Your task to perform on an android device: Search for Mexican restaurants on Maps Image 0: 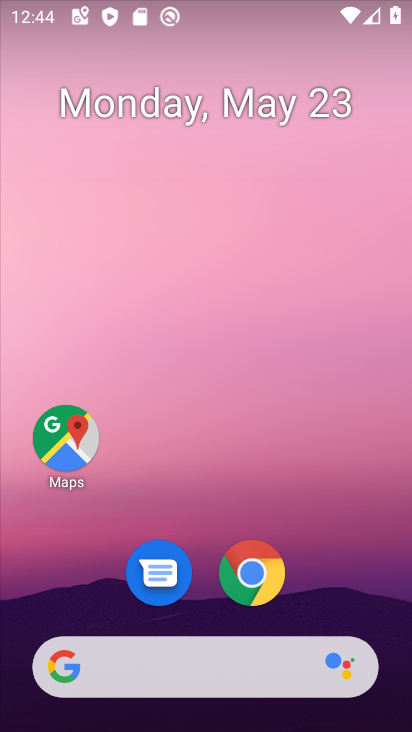
Step 0: drag from (342, 663) to (330, 57)
Your task to perform on an android device: Search for Mexican restaurants on Maps Image 1: 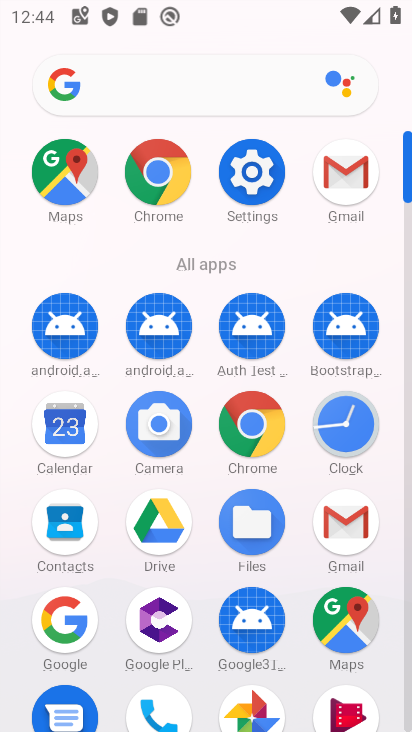
Step 1: click (276, 467)
Your task to perform on an android device: Search for Mexican restaurants on Maps Image 2: 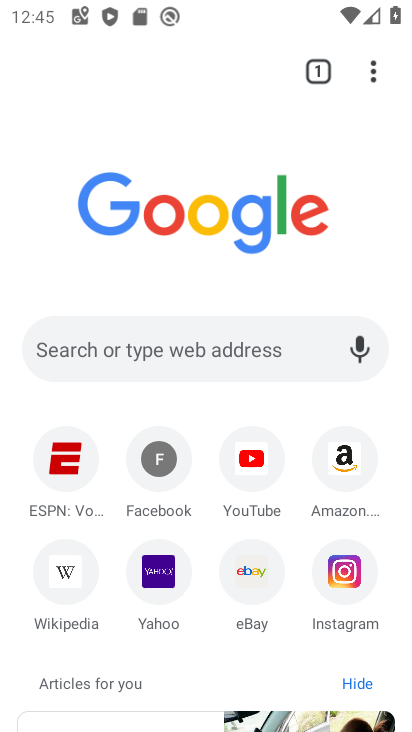
Step 2: press home button
Your task to perform on an android device: Search for Mexican restaurants on Maps Image 3: 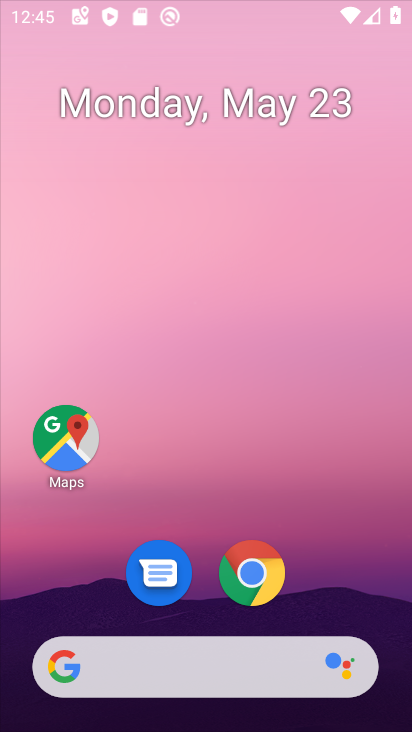
Step 3: drag from (318, 657) to (318, 4)
Your task to perform on an android device: Search for Mexican restaurants on Maps Image 4: 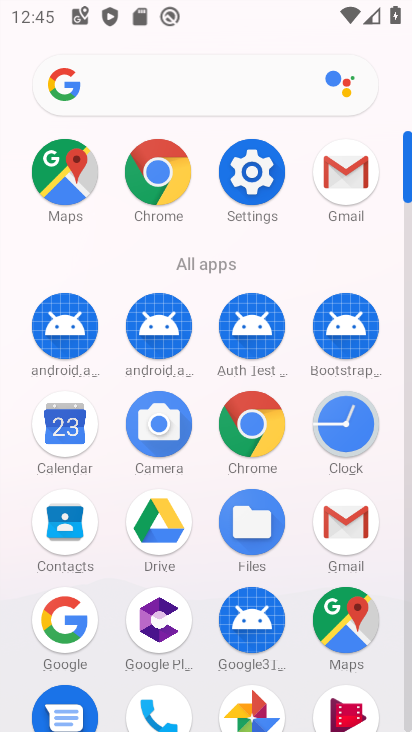
Step 4: click (341, 608)
Your task to perform on an android device: Search for Mexican restaurants on Maps Image 5: 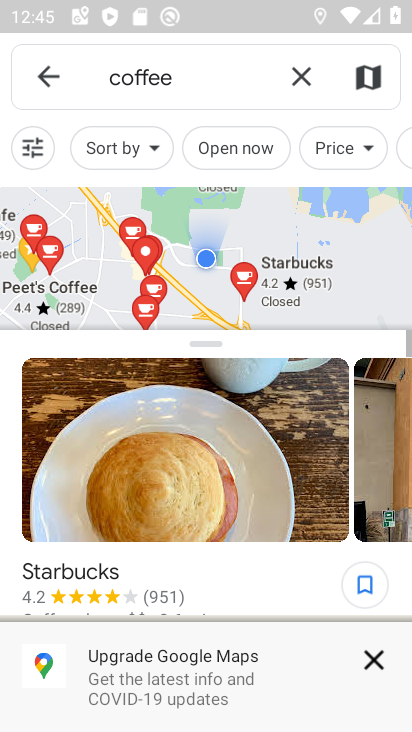
Step 5: click (312, 74)
Your task to perform on an android device: Search for Mexican restaurants on Maps Image 6: 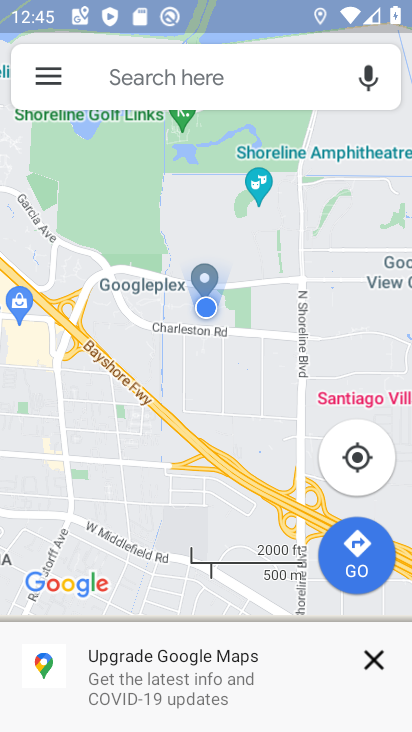
Step 6: click (244, 96)
Your task to perform on an android device: Search for Mexican restaurants on Maps Image 7: 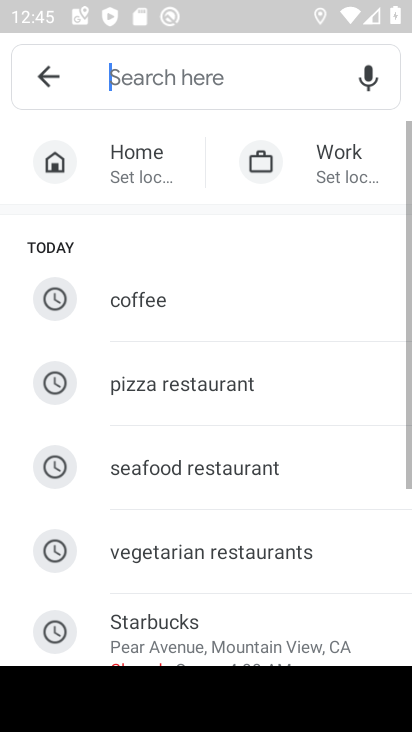
Step 7: drag from (241, 579) to (219, 144)
Your task to perform on an android device: Search for Mexican restaurants on Maps Image 8: 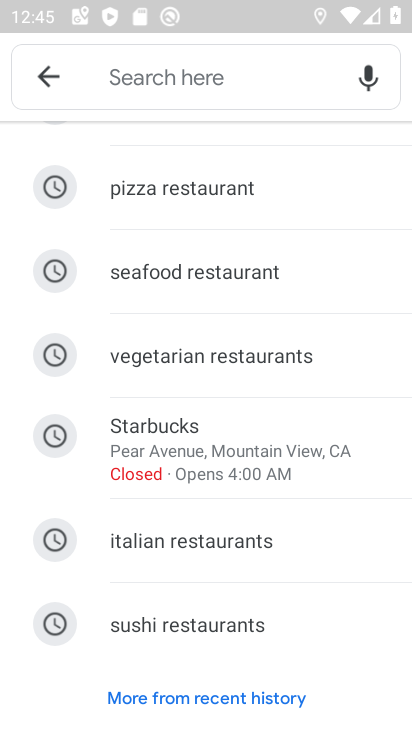
Step 8: click (186, 59)
Your task to perform on an android device: Search for Mexican restaurants on Maps Image 9: 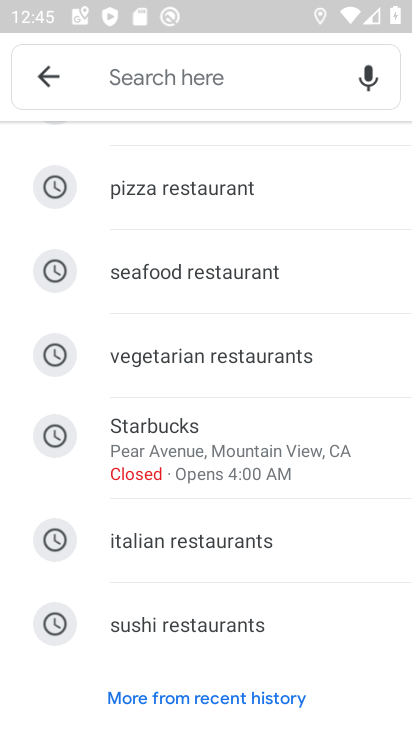
Step 9: click (186, 59)
Your task to perform on an android device: Search for Mexican restaurants on Maps Image 10: 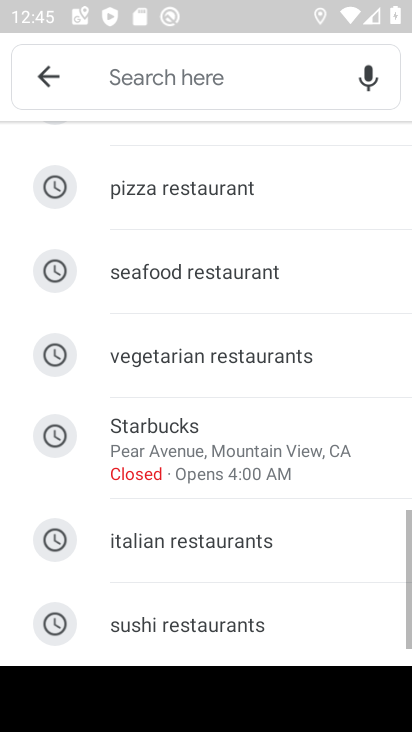
Step 10: click (171, 73)
Your task to perform on an android device: Search for Mexican restaurants on Maps Image 11: 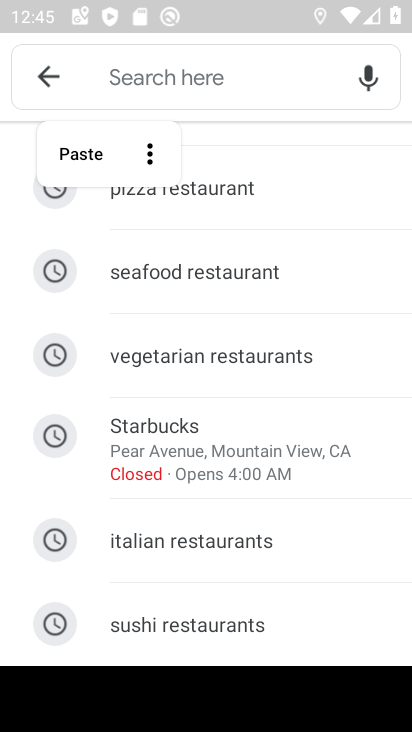
Step 11: type "mexican restaurant"
Your task to perform on an android device: Search for Mexican restaurants on Maps Image 12: 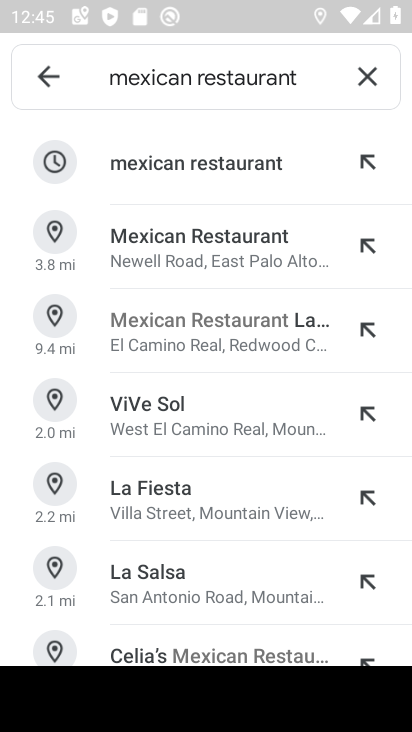
Step 12: click (186, 163)
Your task to perform on an android device: Search for Mexican restaurants on Maps Image 13: 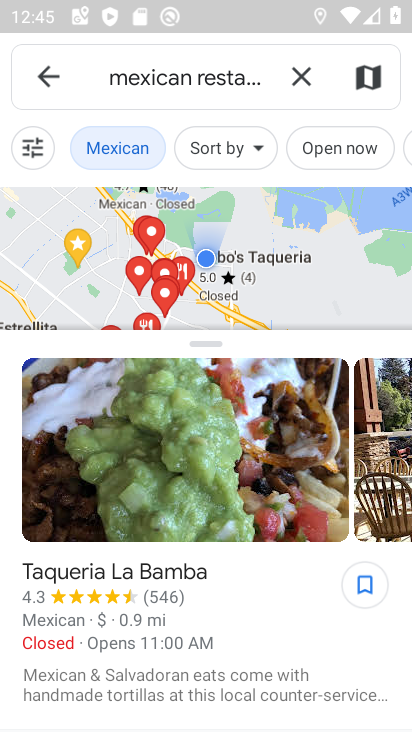
Step 13: task complete